Your task to perform on an android device: find photos in the google photos app Image 0: 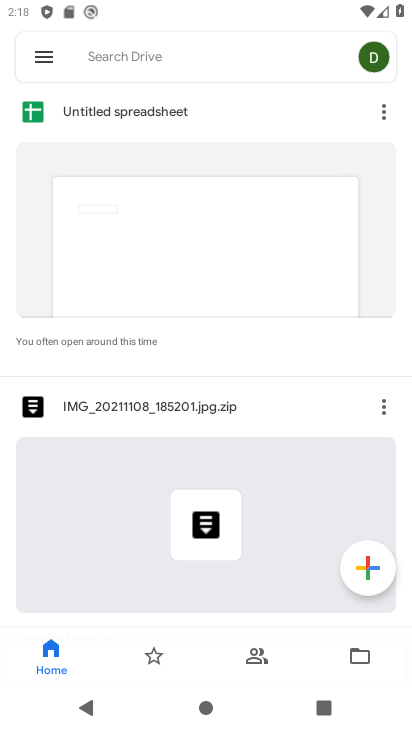
Step 0: press back button
Your task to perform on an android device: find photos in the google photos app Image 1: 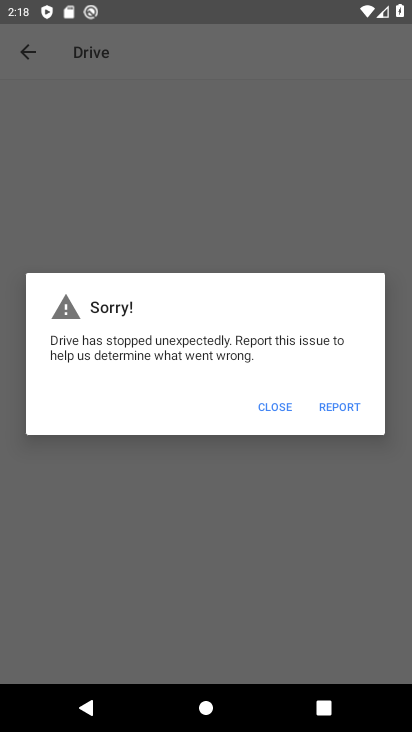
Step 1: press home button
Your task to perform on an android device: find photos in the google photos app Image 2: 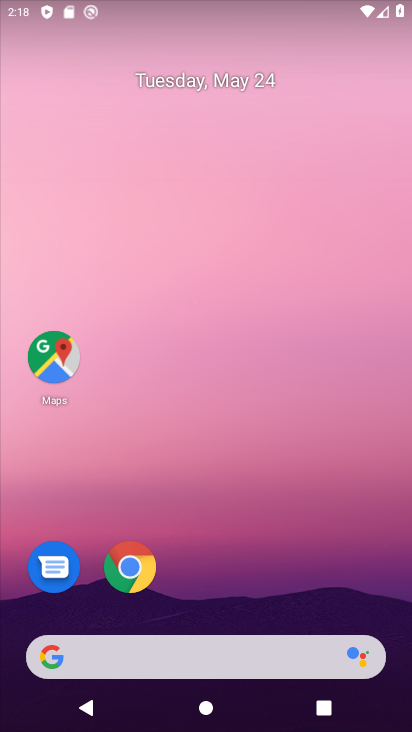
Step 2: drag from (265, 525) to (324, 19)
Your task to perform on an android device: find photos in the google photos app Image 3: 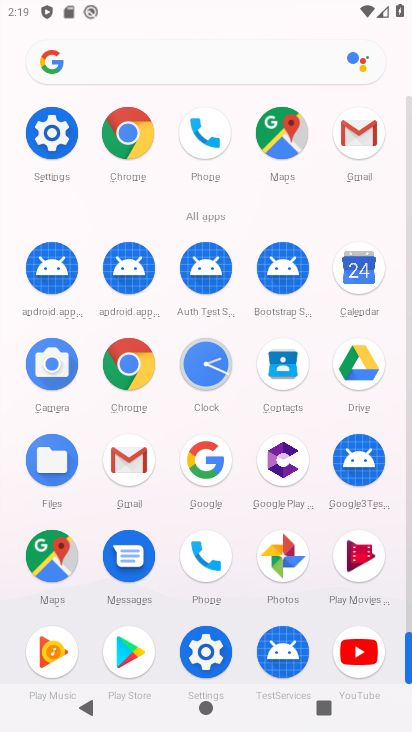
Step 3: click (277, 550)
Your task to perform on an android device: find photos in the google photos app Image 4: 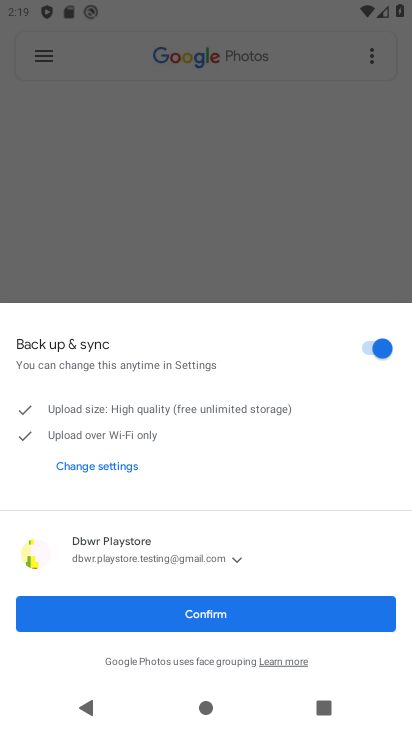
Step 4: click (224, 618)
Your task to perform on an android device: find photos in the google photos app Image 5: 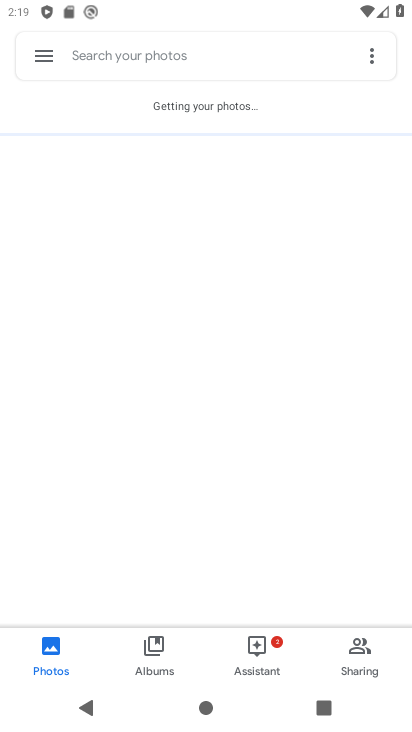
Step 5: task complete